Your task to perform on an android device: Open Chrome and go to settings Image 0: 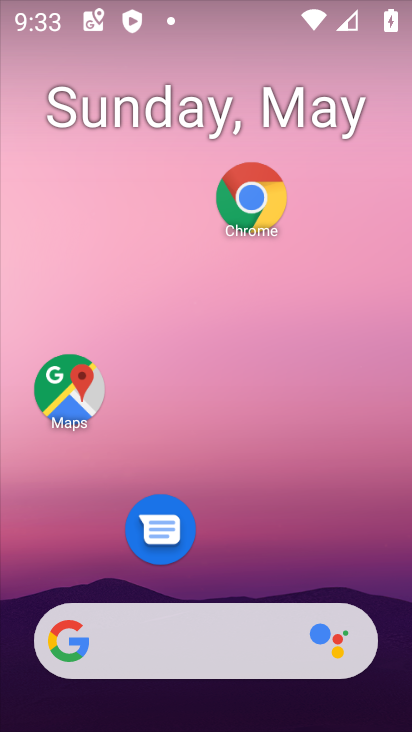
Step 0: click (251, 199)
Your task to perform on an android device: Open Chrome and go to settings Image 1: 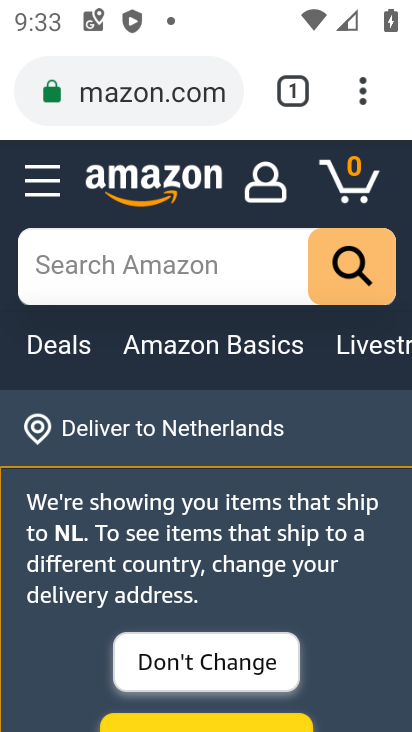
Step 1: click (352, 84)
Your task to perform on an android device: Open Chrome and go to settings Image 2: 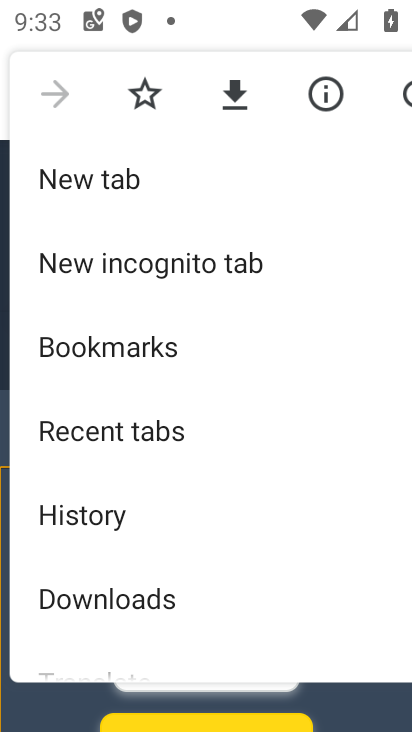
Step 2: drag from (216, 591) to (284, 371)
Your task to perform on an android device: Open Chrome and go to settings Image 3: 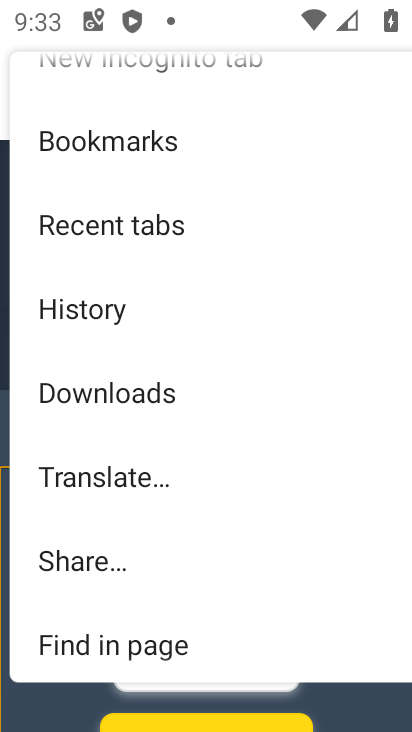
Step 3: drag from (245, 572) to (260, 355)
Your task to perform on an android device: Open Chrome and go to settings Image 4: 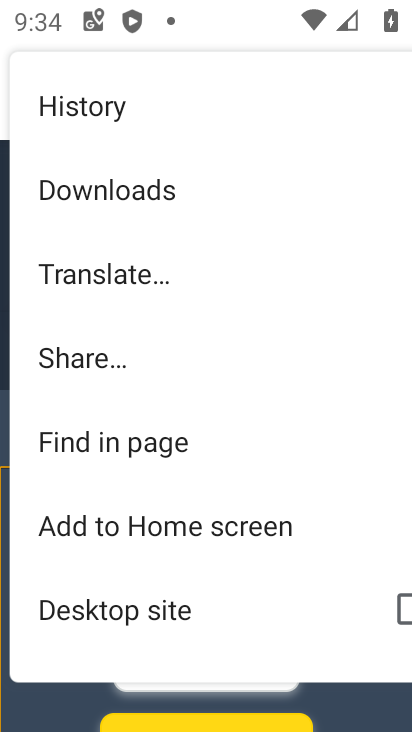
Step 4: drag from (229, 563) to (249, 304)
Your task to perform on an android device: Open Chrome and go to settings Image 5: 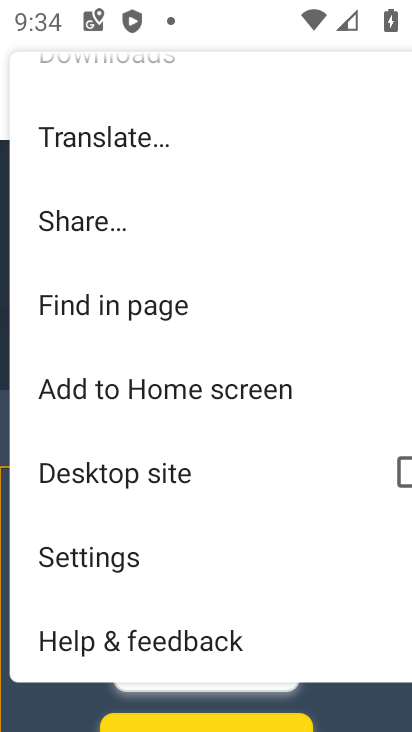
Step 5: click (191, 550)
Your task to perform on an android device: Open Chrome and go to settings Image 6: 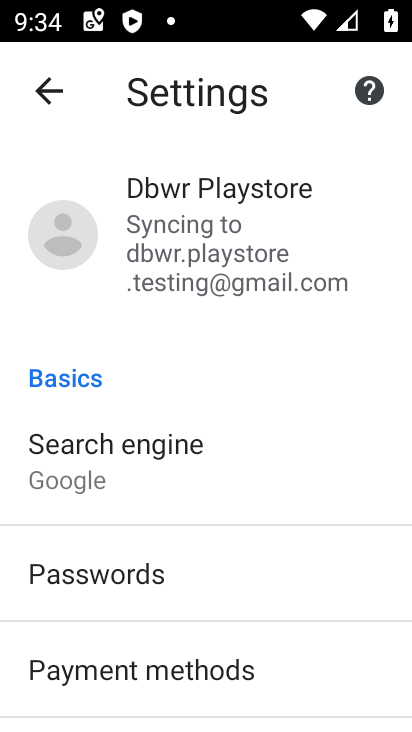
Step 6: task complete